Your task to perform on an android device: What's on my calendar tomorrow? Image 0: 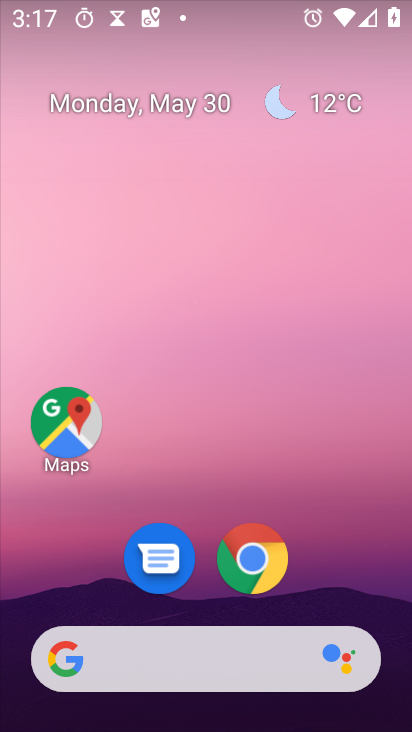
Step 0: drag from (198, 557) to (260, 80)
Your task to perform on an android device: What's on my calendar tomorrow? Image 1: 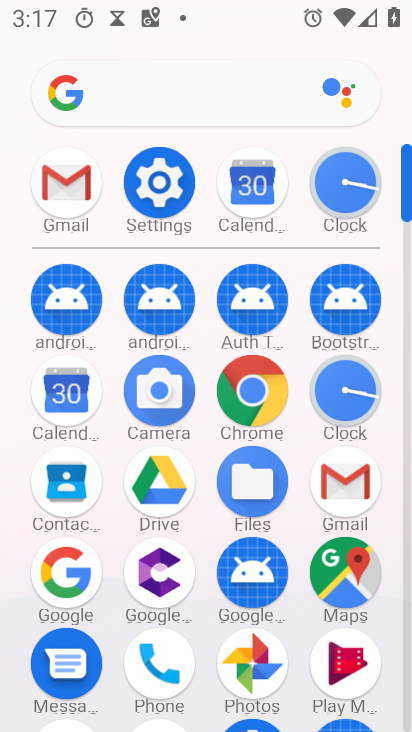
Step 1: click (55, 389)
Your task to perform on an android device: What's on my calendar tomorrow? Image 2: 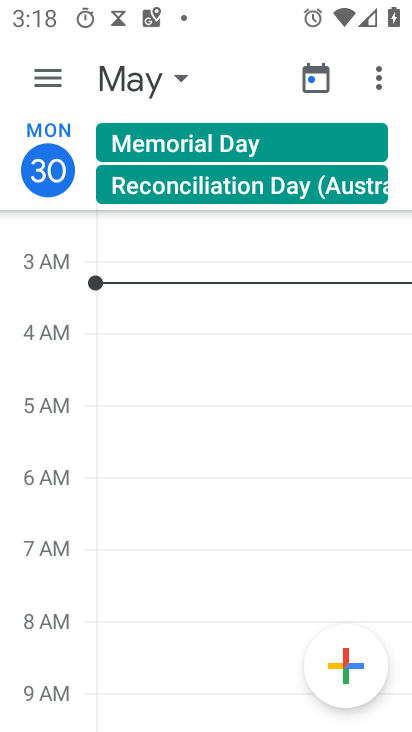
Step 2: click (44, 74)
Your task to perform on an android device: What's on my calendar tomorrow? Image 3: 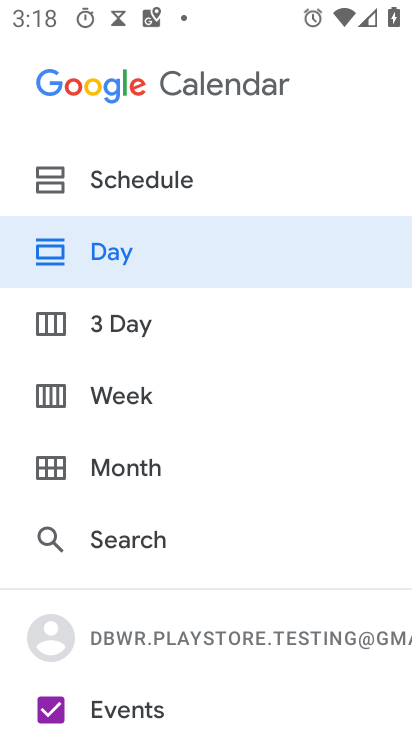
Step 3: click (105, 182)
Your task to perform on an android device: What's on my calendar tomorrow? Image 4: 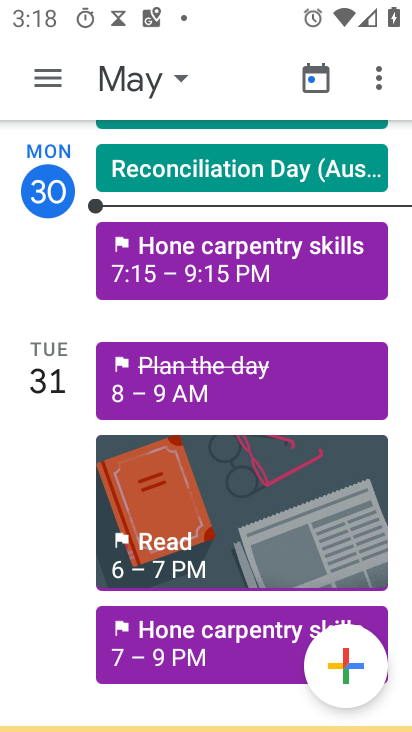
Step 4: click (178, 644)
Your task to perform on an android device: What's on my calendar tomorrow? Image 5: 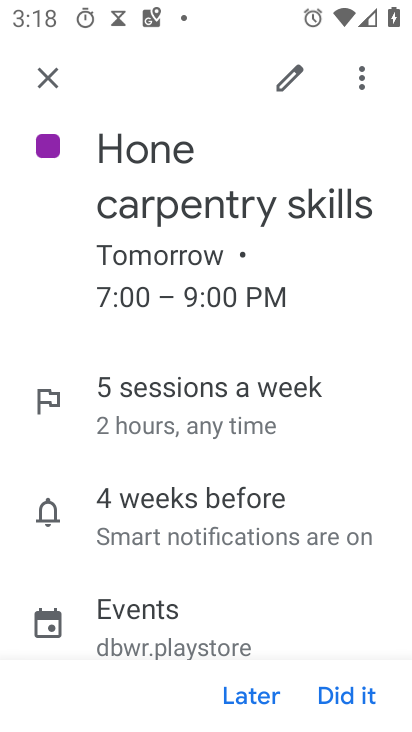
Step 5: task complete